Your task to perform on an android device: set an alarm Image 0: 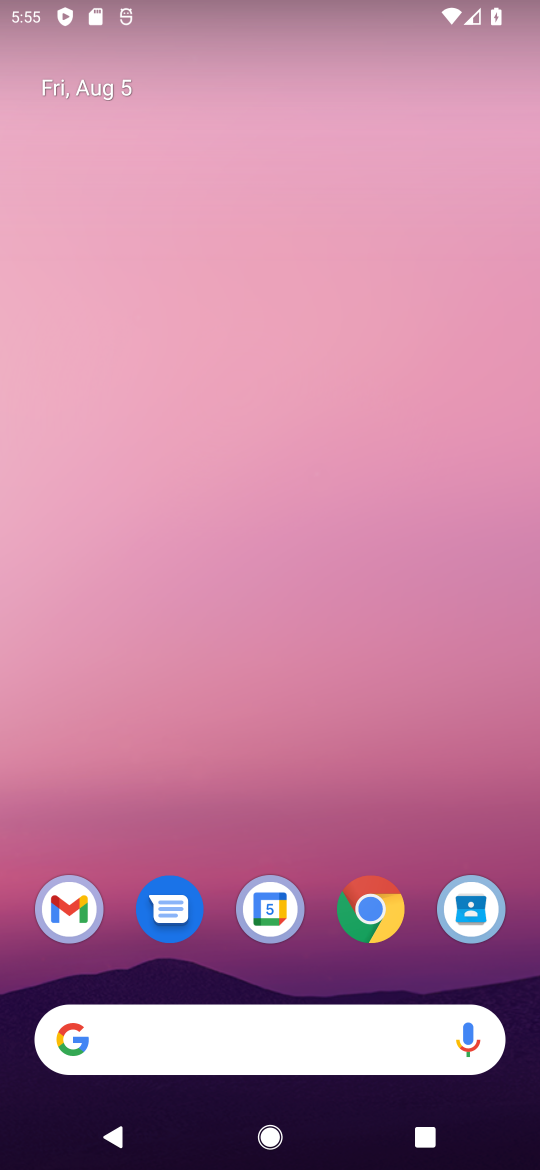
Step 0: press home button
Your task to perform on an android device: set an alarm Image 1: 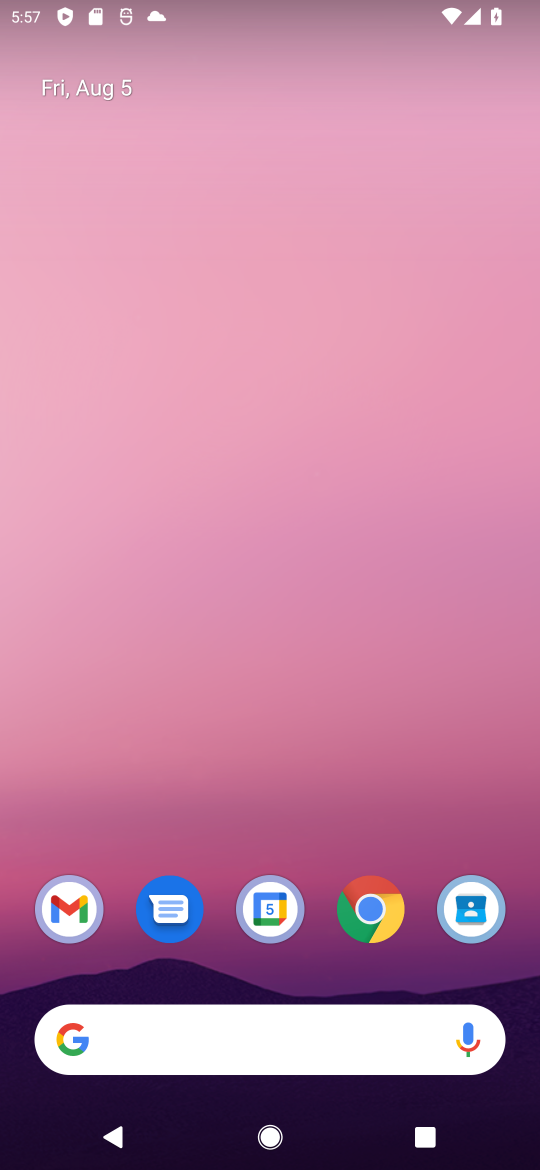
Step 1: drag from (218, 735) to (209, 255)
Your task to perform on an android device: set an alarm Image 2: 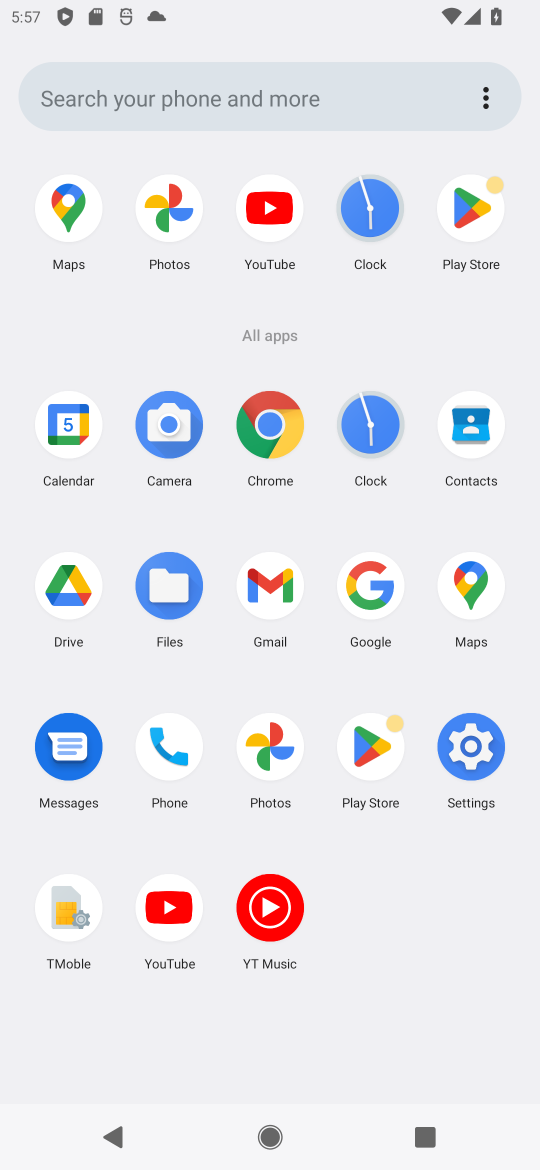
Step 2: click (365, 443)
Your task to perform on an android device: set an alarm Image 3: 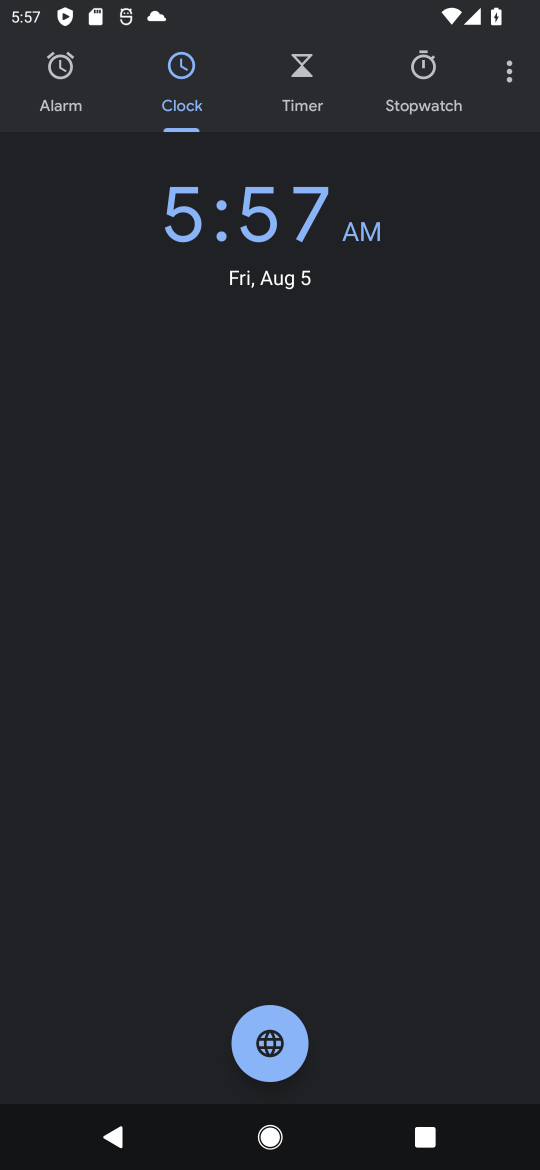
Step 3: click (60, 80)
Your task to perform on an android device: set an alarm Image 4: 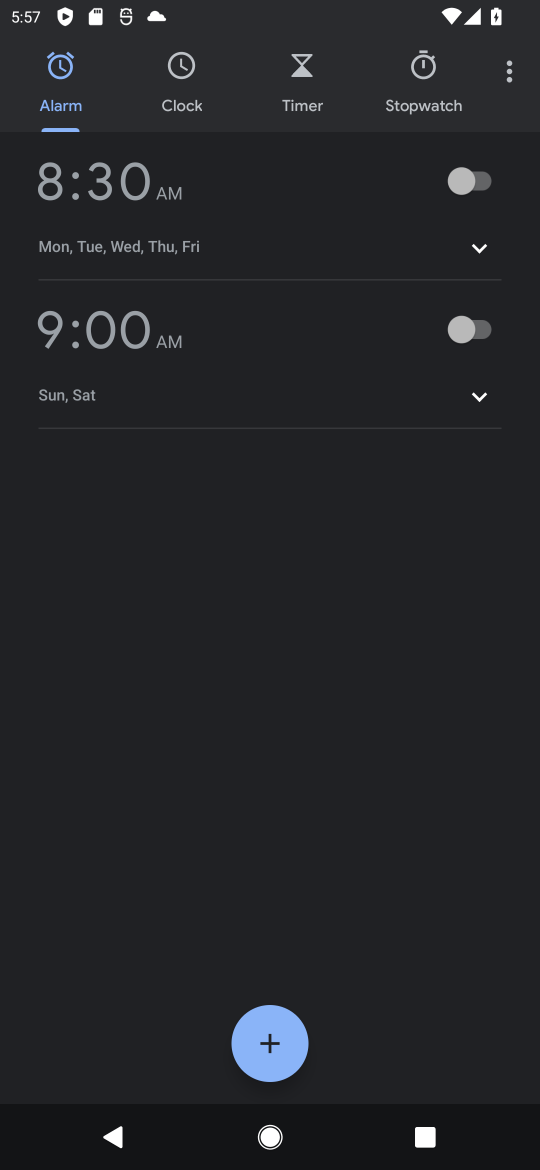
Step 4: click (468, 181)
Your task to perform on an android device: set an alarm Image 5: 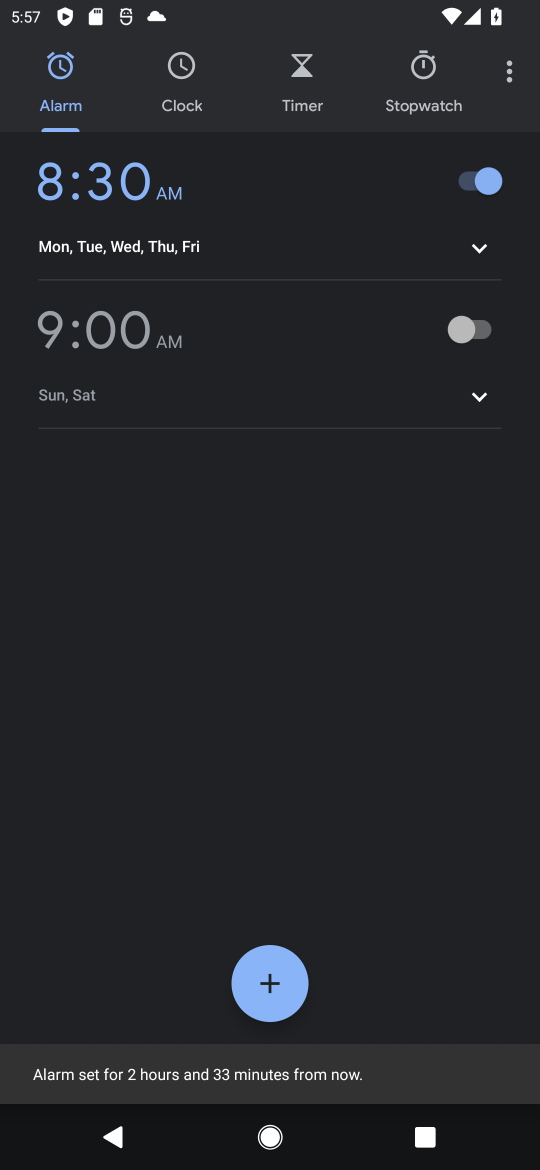
Step 5: task complete